Your task to perform on an android device: add a label to a message in the gmail app Image 0: 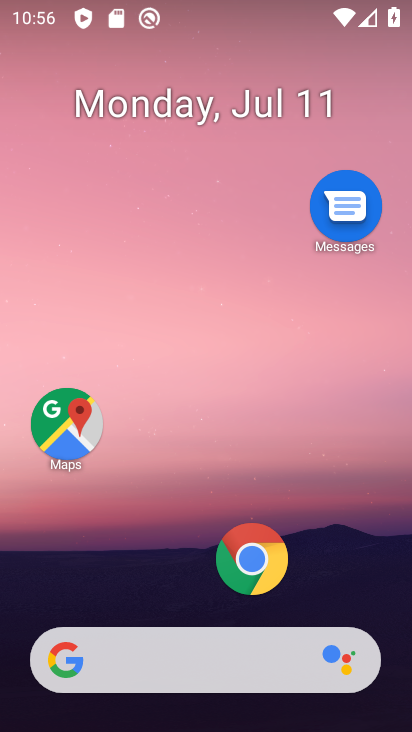
Step 0: drag from (369, 577) to (342, 264)
Your task to perform on an android device: add a label to a message in the gmail app Image 1: 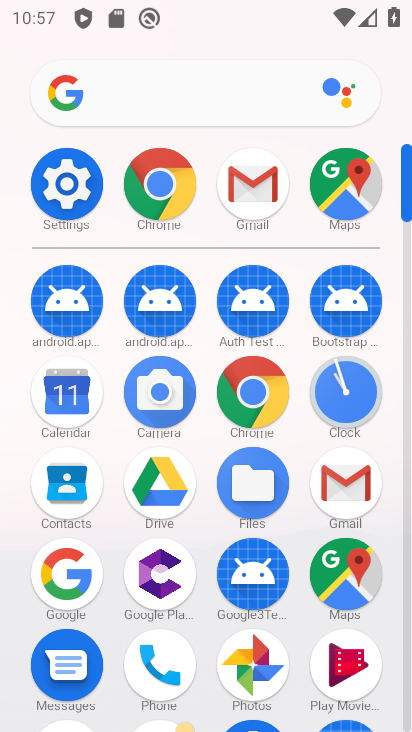
Step 1: click (348, 475)
Your task to perform on an android device: add a label to a message in the gmail app Image 2: 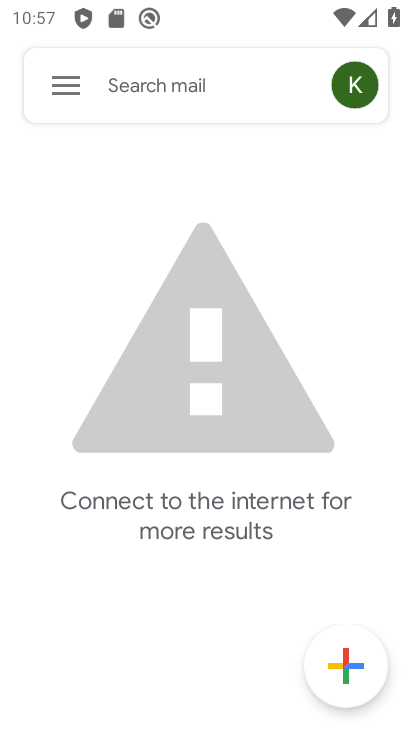
Step 2: click (69, 94)
Your task to perform on an android device: add a label to a message in the gmail app Image 3: 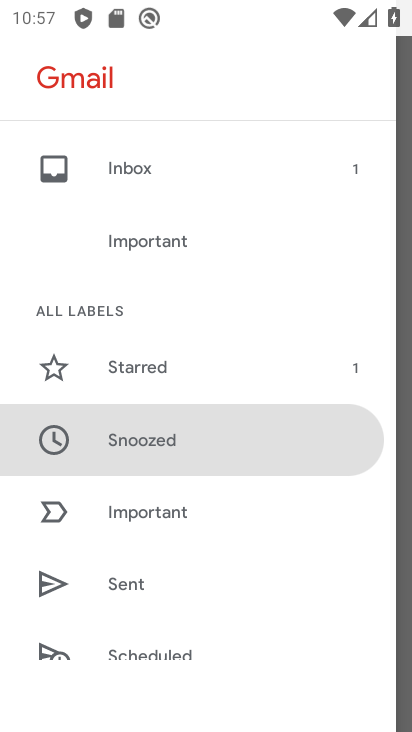
Step 3: click (138, 173)
Your task to perform on an android device: add a label to a message in the gmail app Image 4: 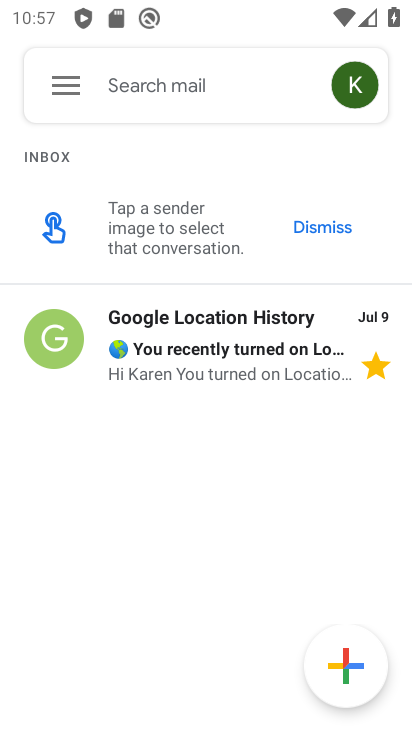
Step 4: click (208, 346)
Your task to perform on an android device: add a label to a message in the gmail app Image 5: 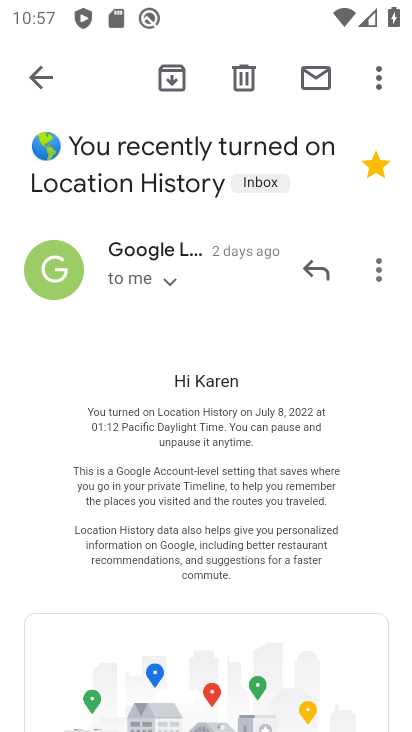
Step 5: click (264, 184)
Your task to perform on an android device: add a label to a message in the gmail app Image 6: 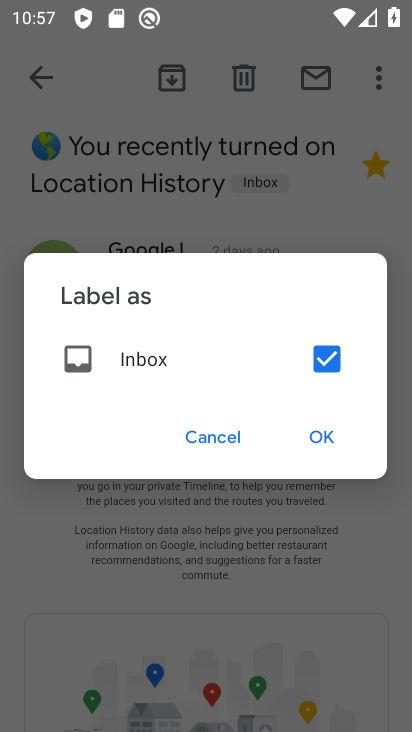
Step 6: click (330, 351)
Your task to perform on an android device: add a label to a message in the gmail app Image 7: 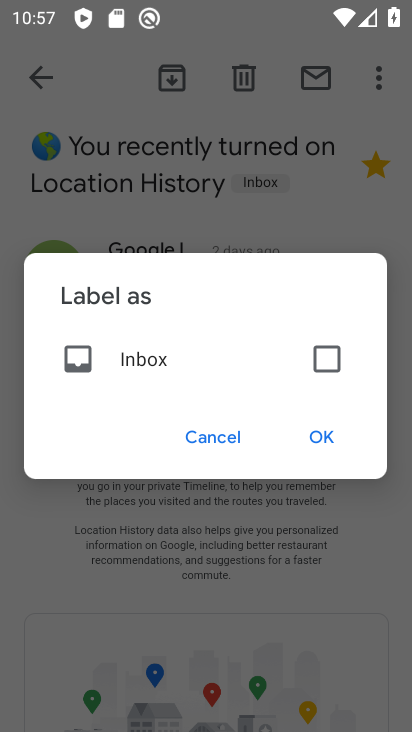
Step 7: click (323, 434)
Your task to perform on an android device: add a label to a message in the gmail app Image 8: 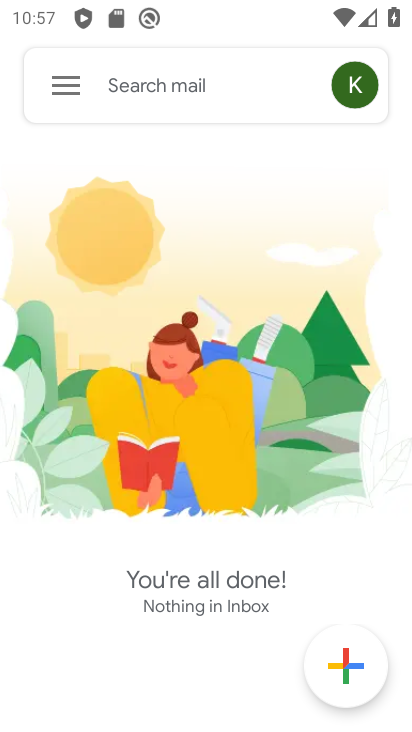
Step 8: task complete